Your task to perform on an android device: Show me the alarms in the clock app Image 0: 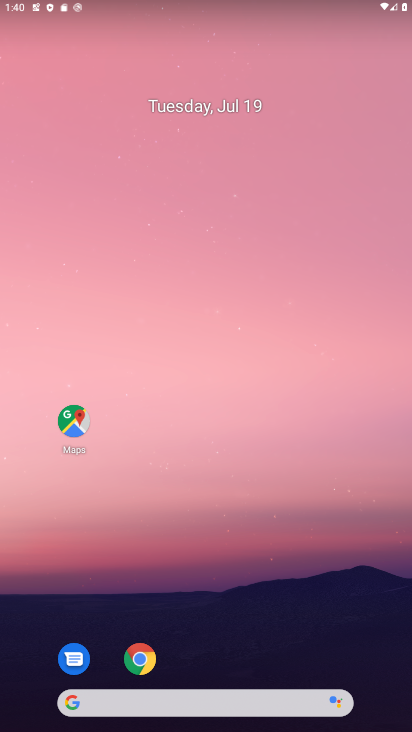
Step 0: drag from (250, 664) to (250, 57)
Your task to perform on an android device: Show me the alarms in the clock app Image 1: 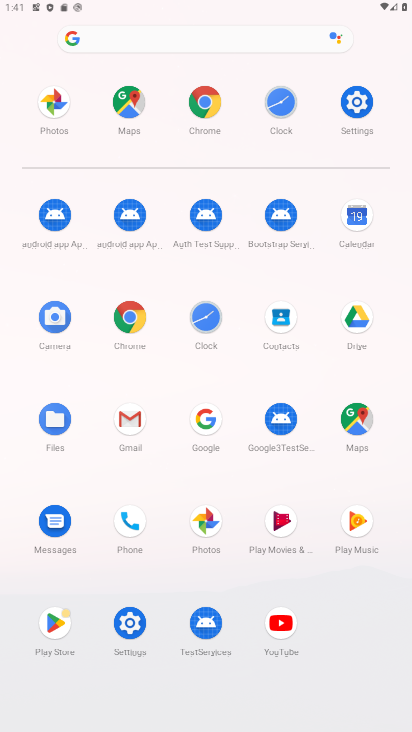
Step 1: click (197, 332)
Your task to perform on an android device: Show me the alarms in the clock app Image 2: 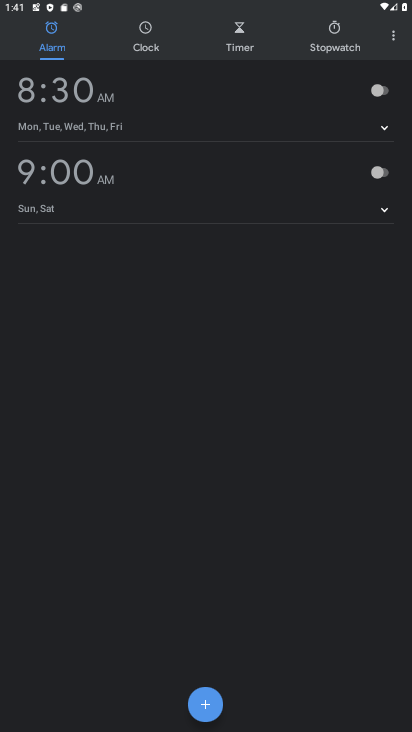
Step 2: task complete